Your task to perform on an android device: Open the Play Movies app and select the watchlist tab. Image 0: 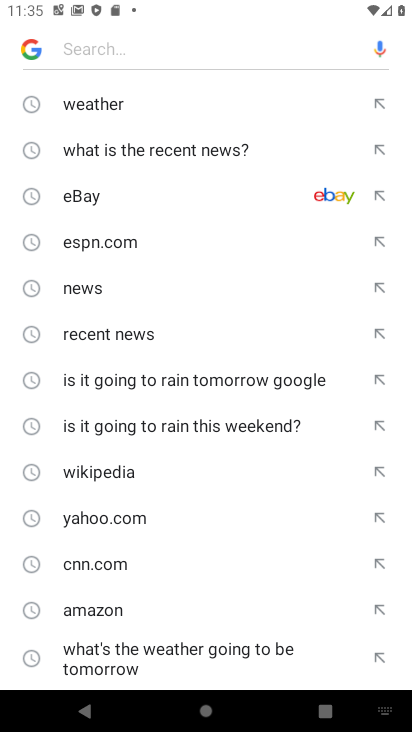
Step 0: press home button
Your task to perform on an android device: Open the Play Movies app and select the watchlist tab. Image 1: 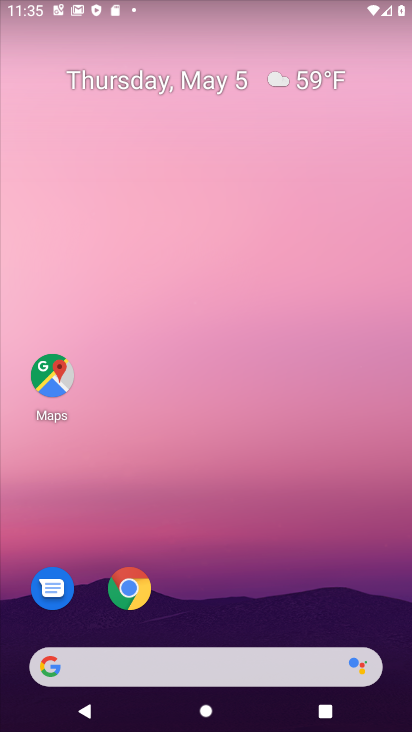
Step 1: drag from (153, 672) to (246, 168)
Your task to perform on an android device: Open the Play Movies app and select the watchlist tab. Image 2: 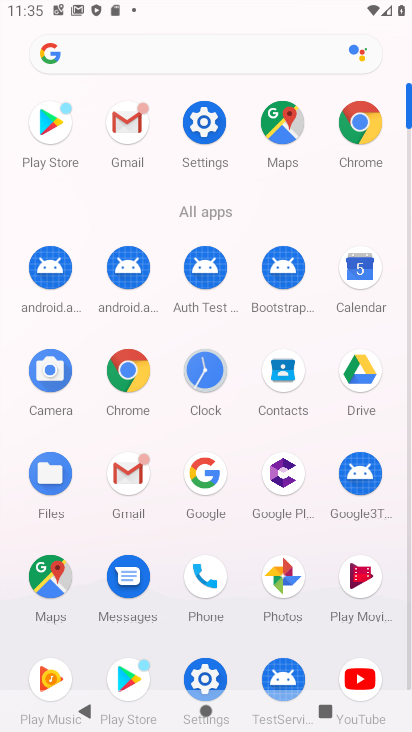
Step 2: click (363, 579)
Your task to perform on an android device: Open the Play Movies app and select the watchlist tab. Image 3: 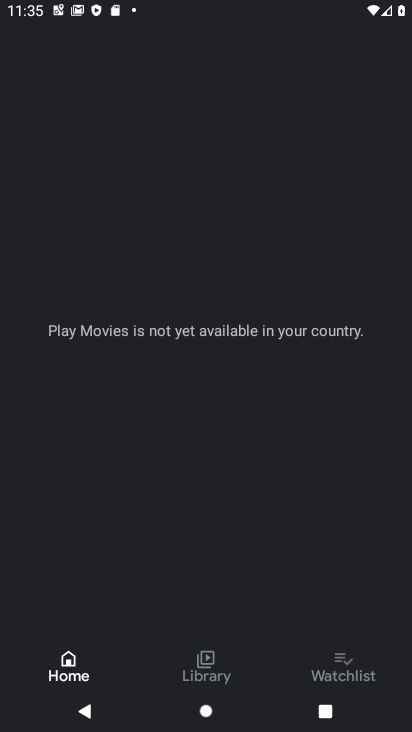
Step 3: click (348, 675)
Your task to perform on an android device: Open the Play Movies app and select the watchlist tab. Image 4: 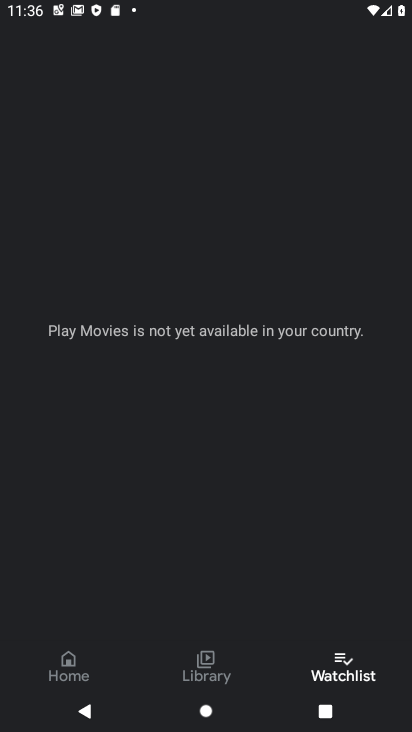
Step 4: task complete